Your task to perform on an android device: Go to display settings Image 0: 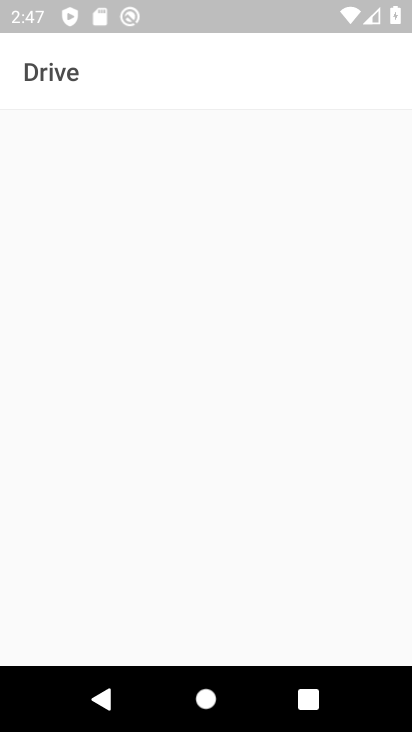
Step 0: press home button
Your task to perform on an android device: Go to display settings Image 1: 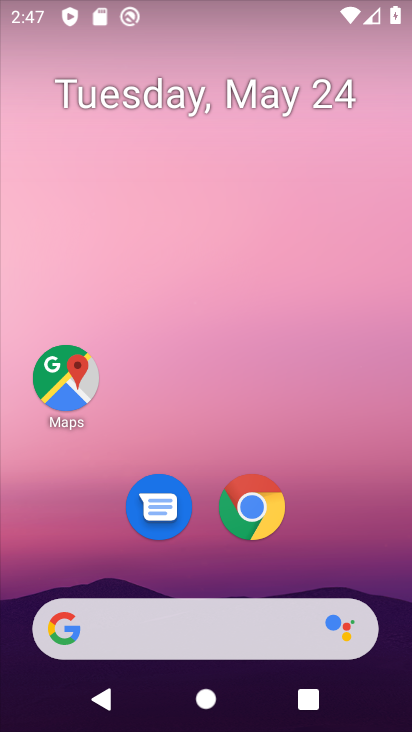
Step 1: drag from (211, 587) to (302, 105)
Your task to perform on an android device: Go to display settings Image 2: 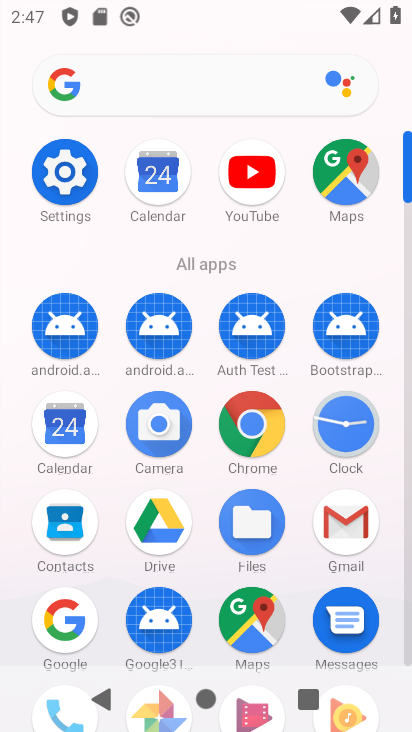
Step 2: click (71, 173)
Your task to perform on an android device: Go to display settings Image 3: 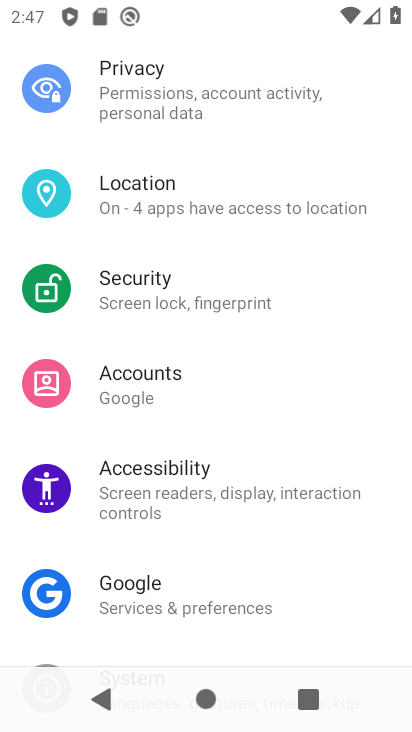
Step 3: drag from (189, 198) to (148, 633)
Your task to perform on an android device: Go to display settings Image 4: 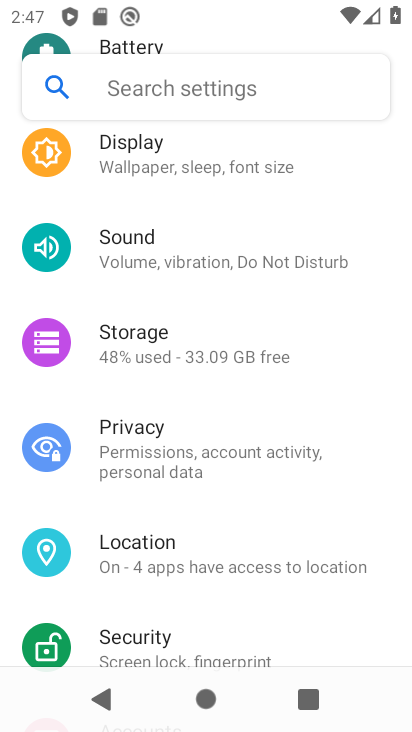
Step 4: click (157, 163)
Your task to perform on an android device: Go to display settings Image 5: 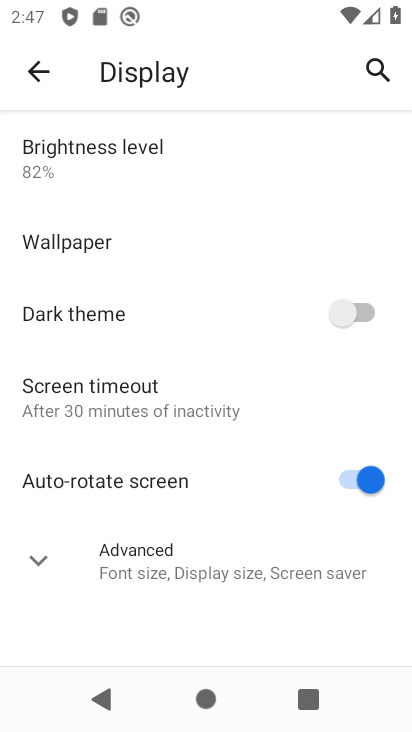
Step 5: task complete